Your task to perform on an android device: Add "duracell triple a" to the cart on costco.com Image 0: 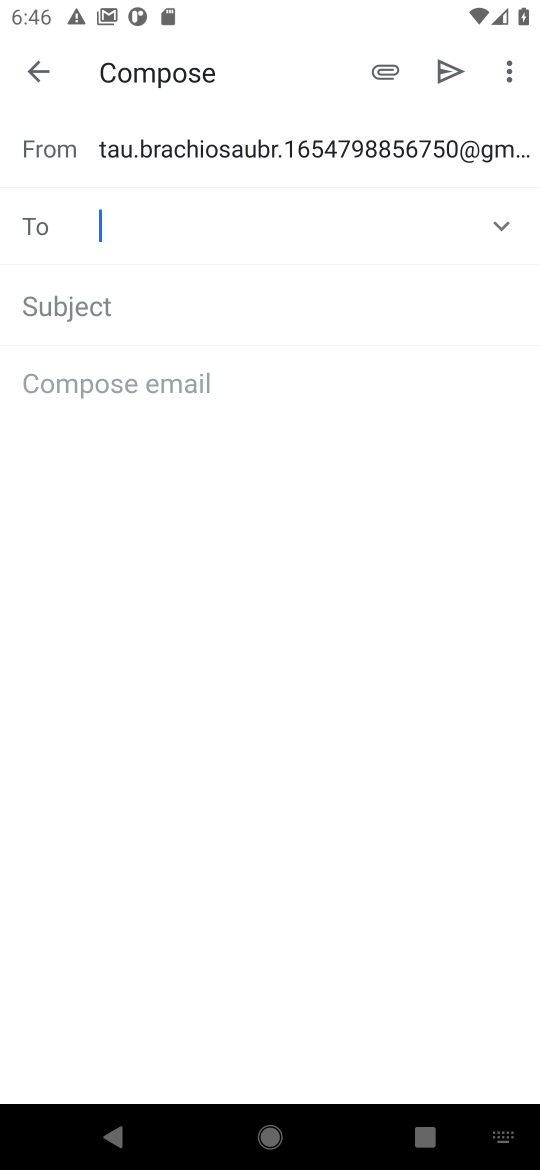
Step 0: press home button
Your task to perform on an android device: Add "duracell triple a" to the cart on costco.com Image 1: 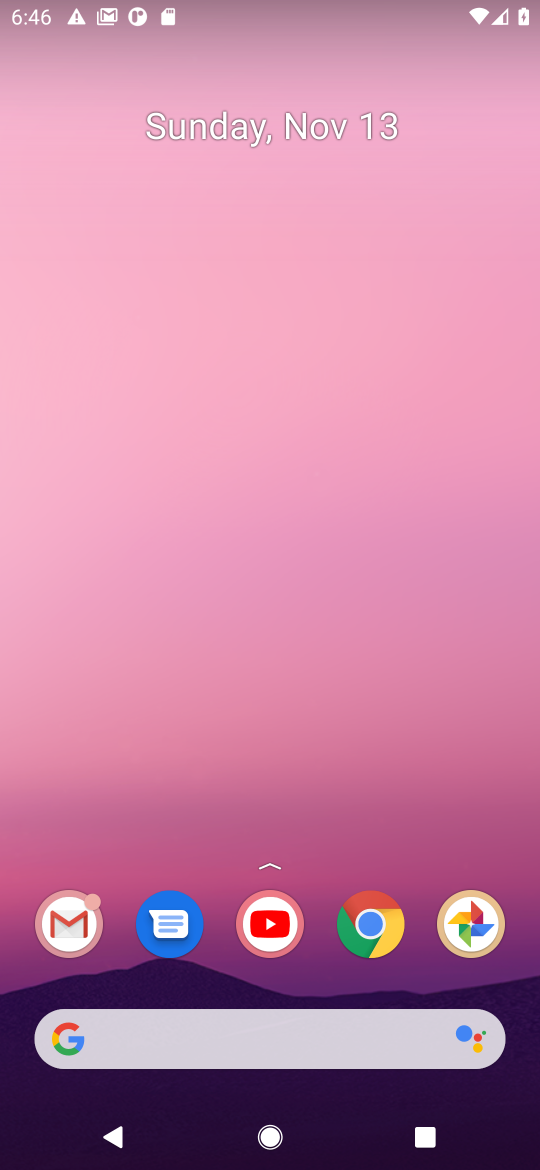
Step 1: click (371, 938)
Your task to perform on an android device: Add "duracell triple a" to the cart on costco.com Image 2: 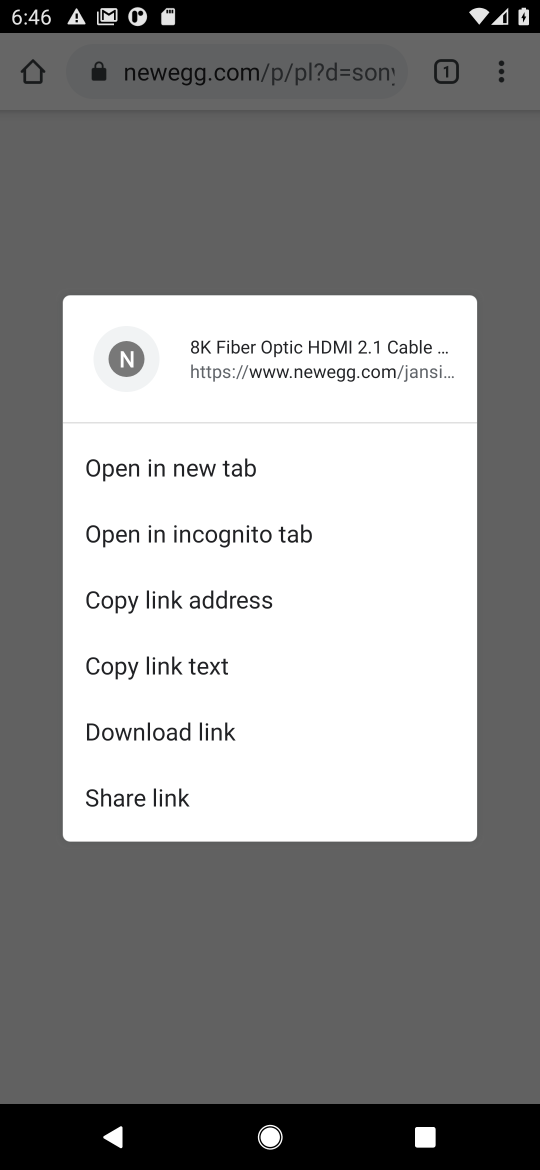
Step 2: click (142, 120)
Your task to perform on an android device: Add "duracell triple a" to the cart on costco.com Image 3: 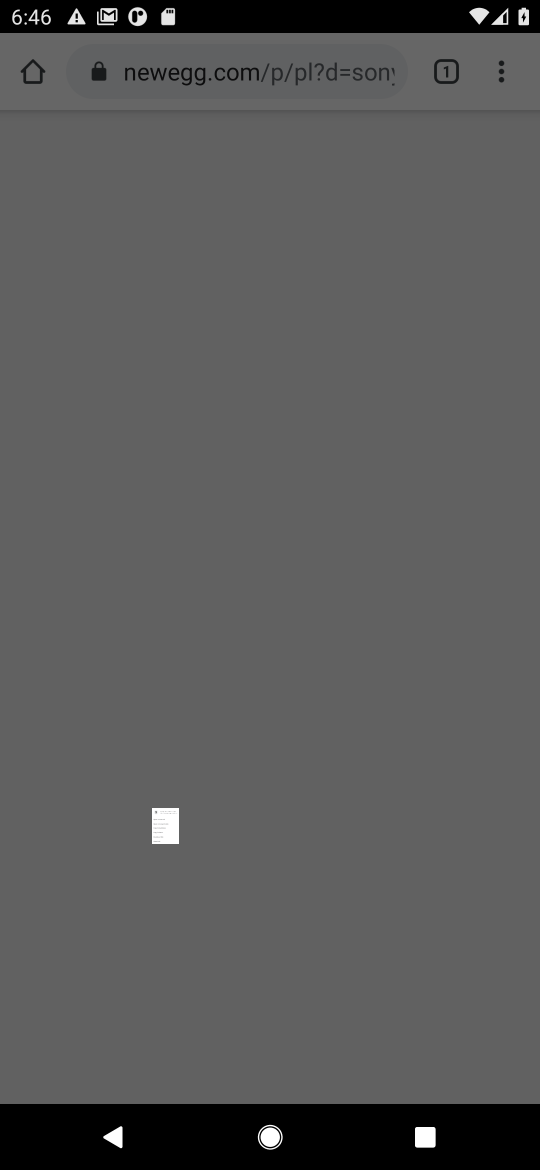
Step 3: click (150, 75)
Your task to perform on an android device: Add "duracell triple a" to the cart on costco.com Image 4: 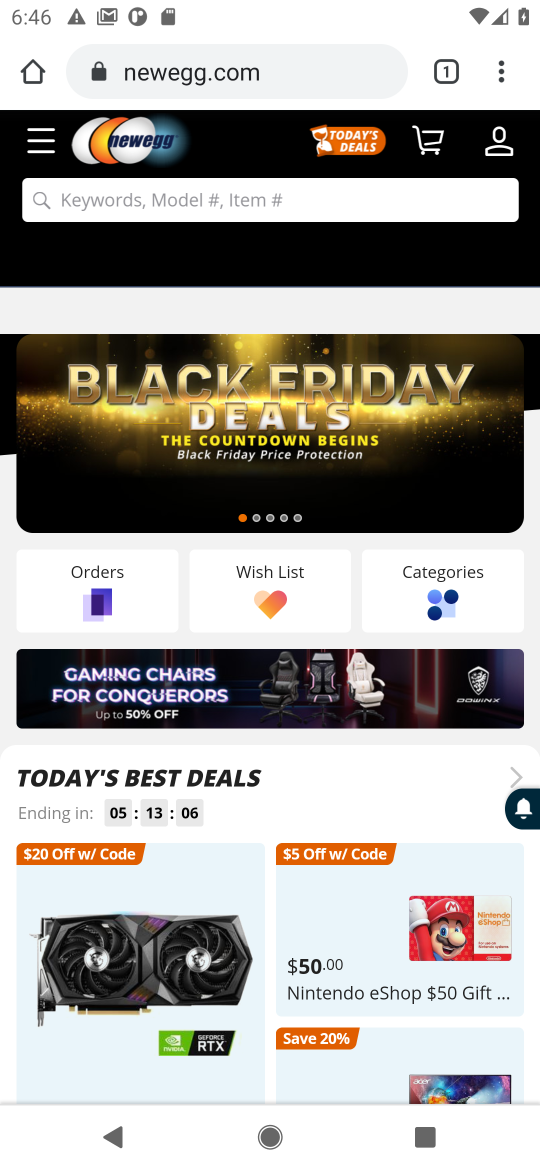
Step 4: click (150, 75)
Your task to perform on an android device: Add "duracell triple a" to the cart on costco.com Image 5: 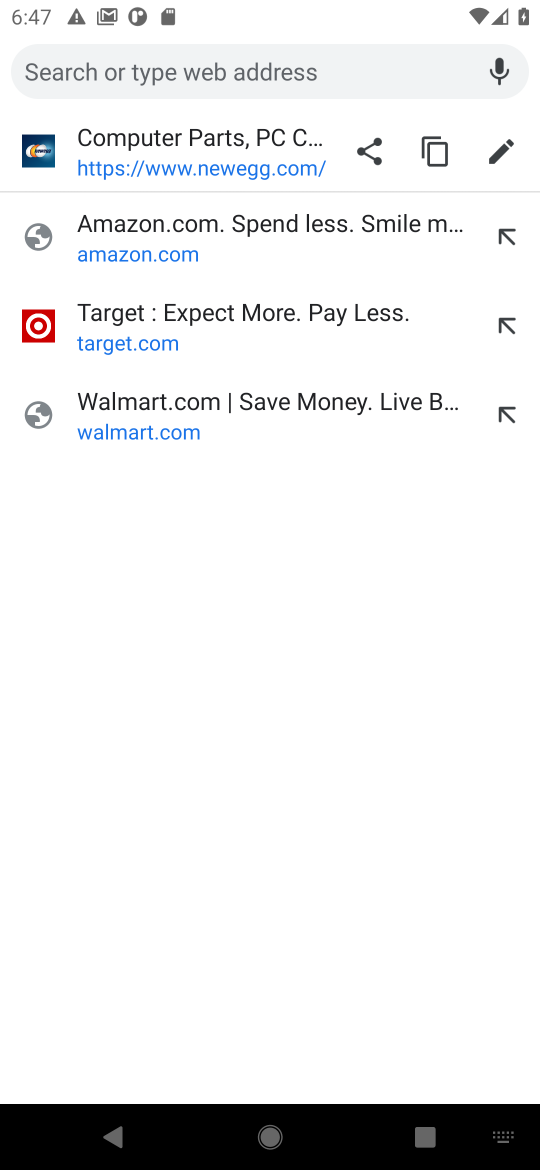
Step 5: type "costco.com"
Your task to perform on an android device: Add "duracell triple a" to the cart on costco.com Image 6: 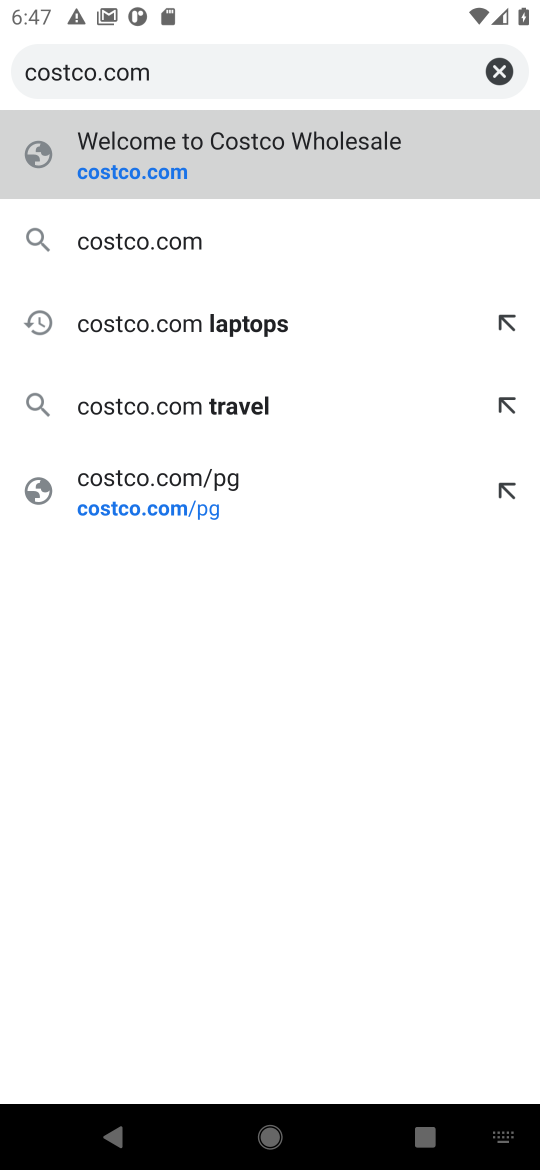
Step 6: click (130, 180)
Your task to perform on an android device: Add "duracell triple a" to the cart on costco.com Image 7: 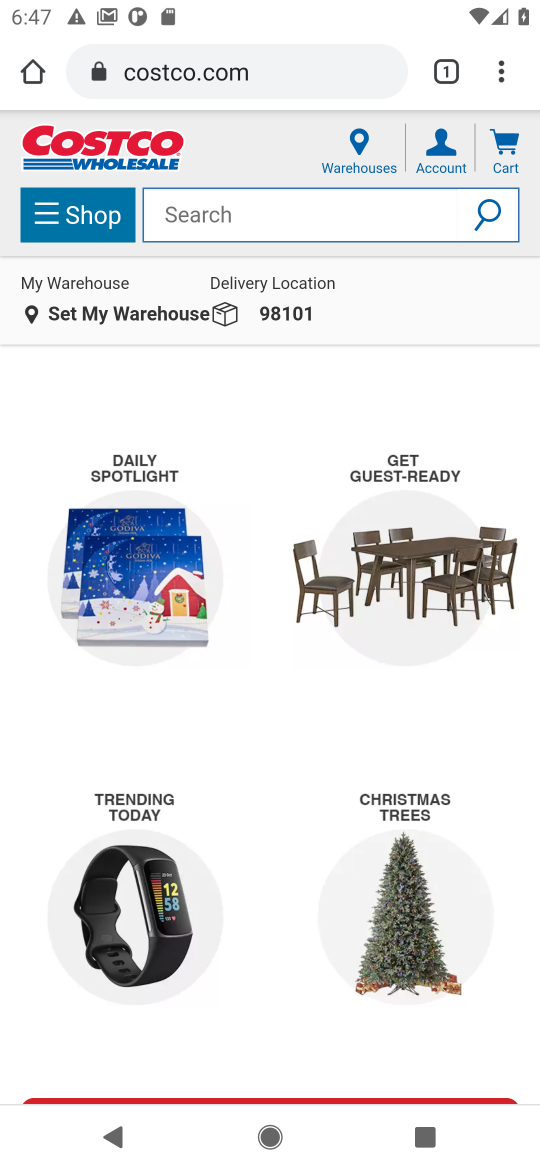
Step 7: click (252, 207)
Your task to perform on an android device: Add "duracell triple a" to the cart on costco.com Image 8: 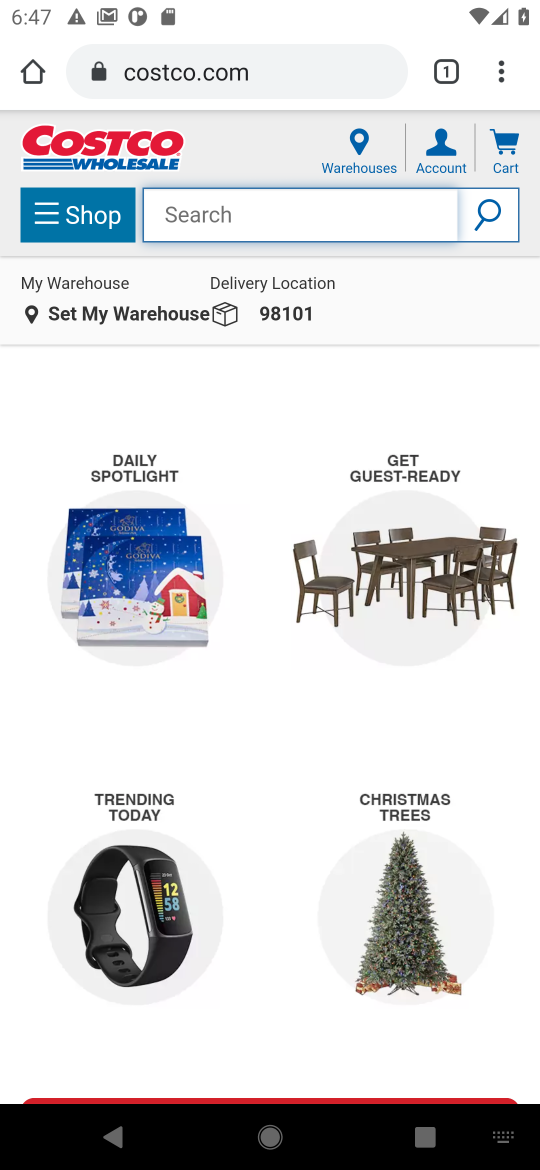
Step 8: type "duracell triple a"
Your task to perform on an android device: Add "duracell triple a" to the cart on costco.com Image 9: 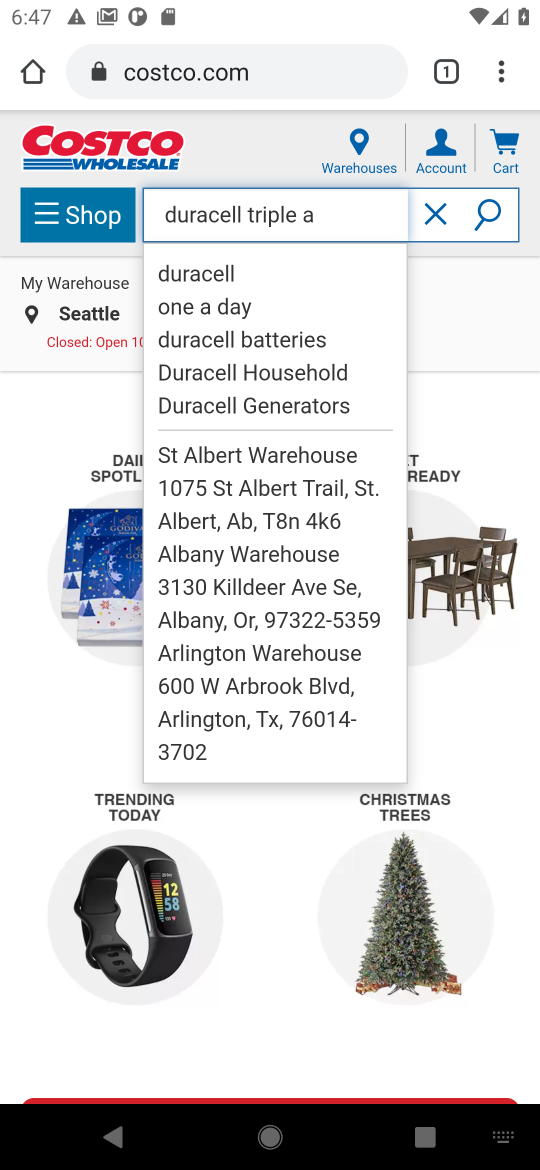
Step 9: click (478, 207)
Your task to perform on an android device: Add "duracell triple a" to the cart on costco.com Image 10: 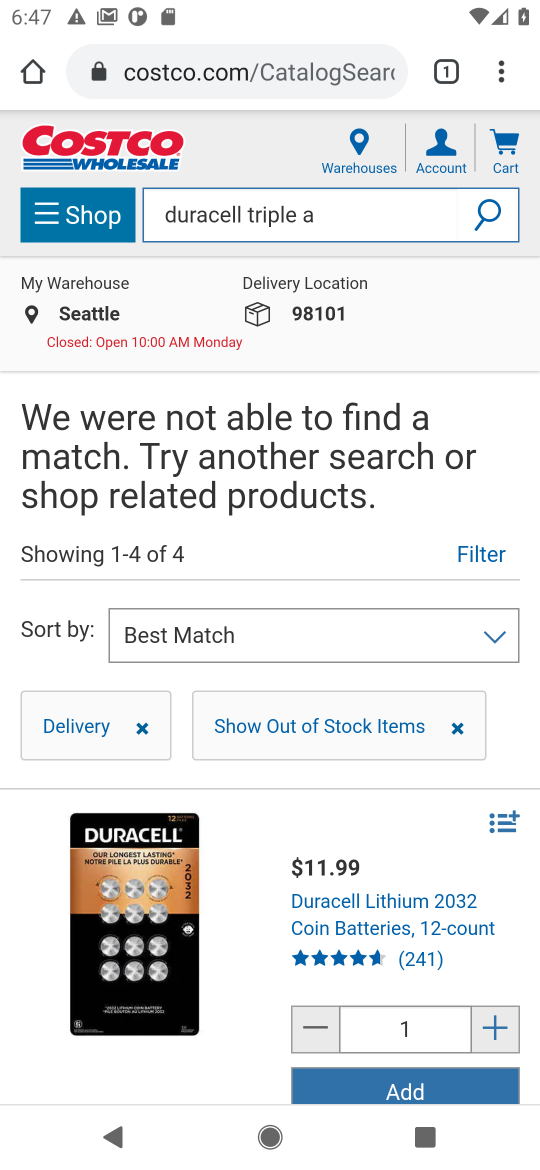
Step 10: task complete